Your task to perform on an android device: turn off javascript in the chrome app Image 0: 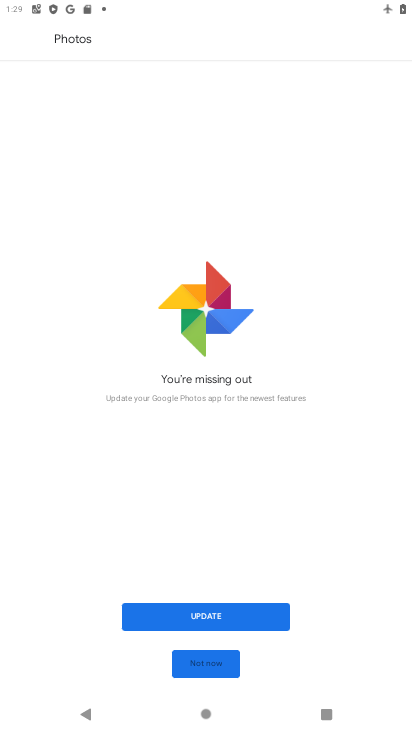
Step 0: click (243, 608)
Your task to perform on an android device: turn off javascript in the chrome app Image 1: 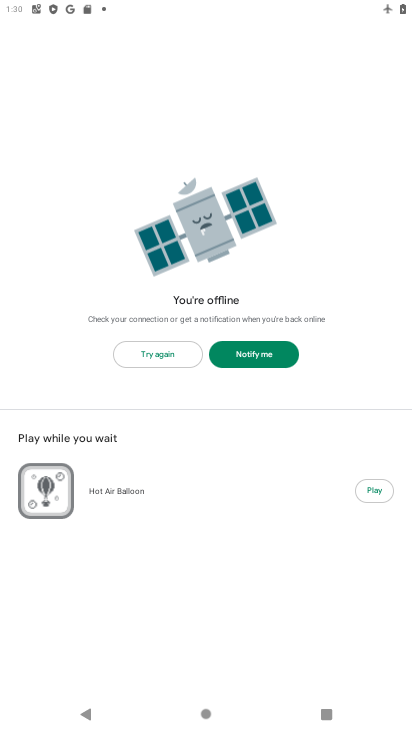
Step 1: press home button
Your task to perform on an android device: turn off javascript in the chrome app Image 2: 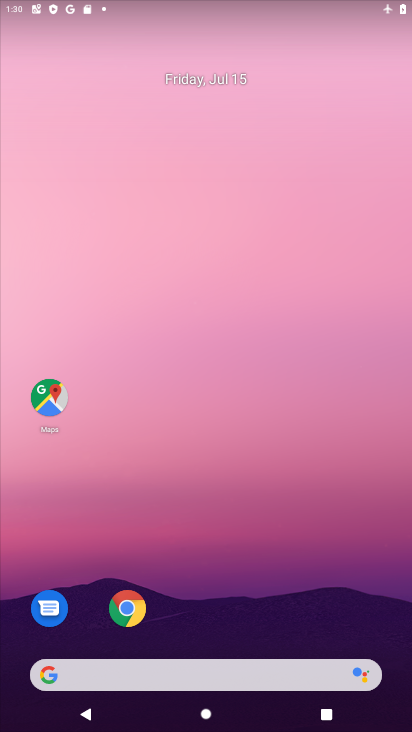
Step 2: click (129, 607)
Your task to perform on an android device: turn off javascript in the chrome app Image 3: 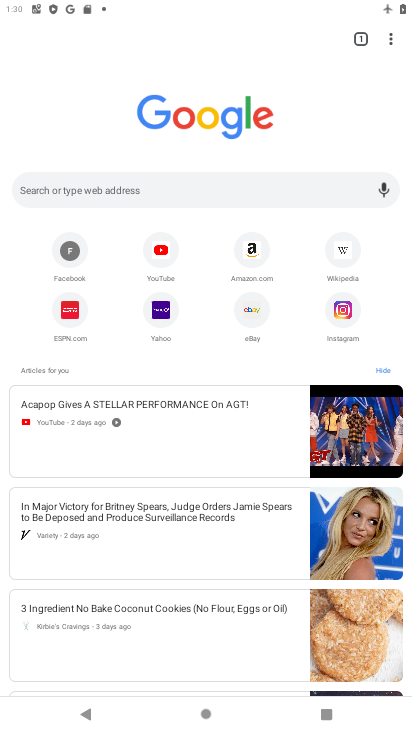
Step 3: click (392, 36)
Your task to perform on an android device: turn off javascript in the chrome app Image 4: 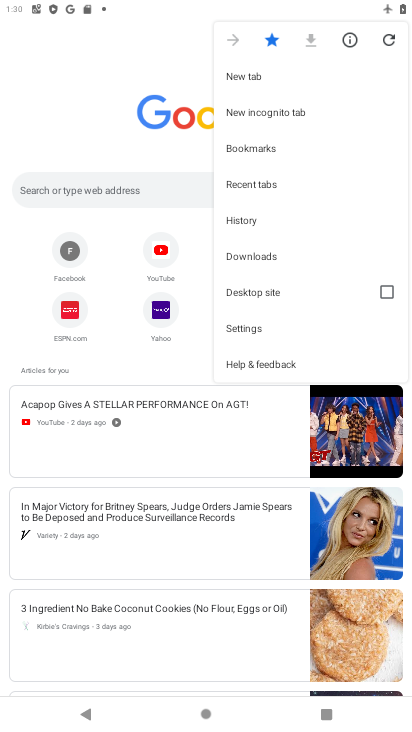
Step 4: click (249, 328)
Your task to perform on an android device: turn off javascript in the chrome app Image 5: 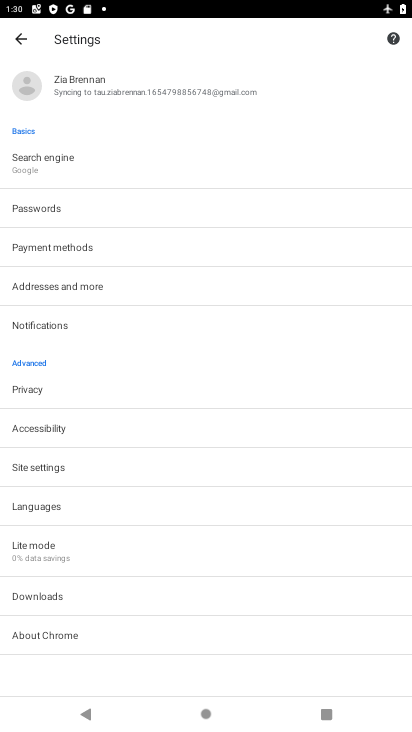
Step 5: click (54, 468)
Your task to perform on an android device: turn off javascript in the chrome app Image 6: 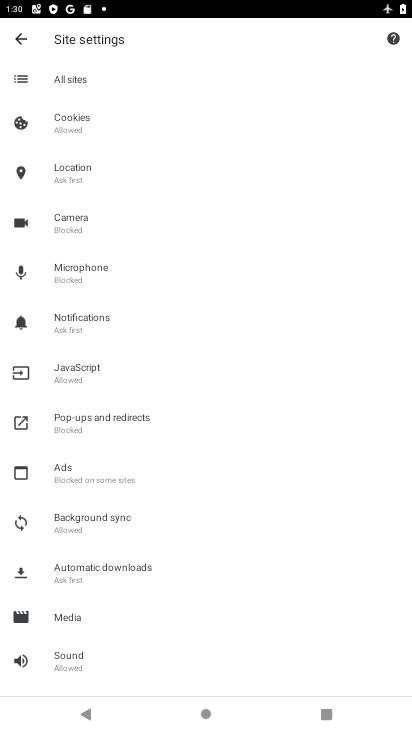
Step 6: click (92, 372)
Your task to perform on an android device: turn off javascript in the chrome app Image 7: 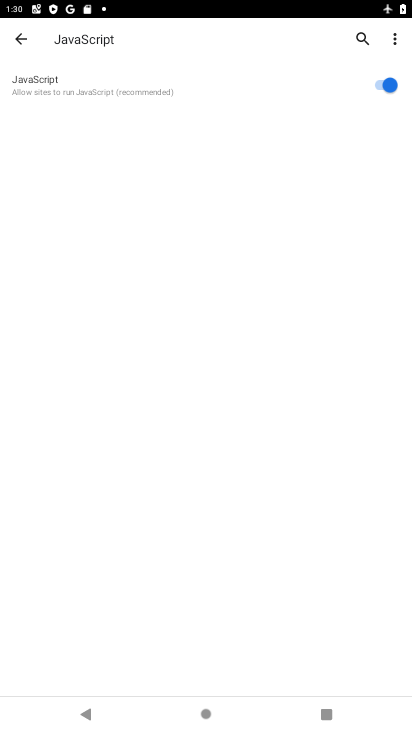
Step 7: click (390, 88)
Your task to perform on an android device: turn off javascript in the chrome app Image 8: 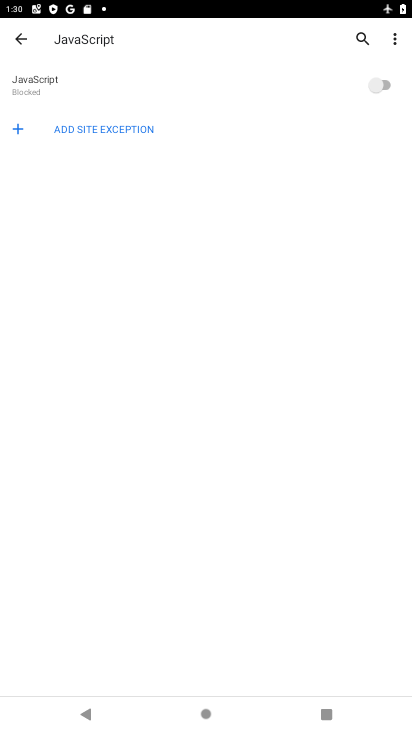
Step 8: task complete